Your task to perform on an android device: What's the weather? Image 0: 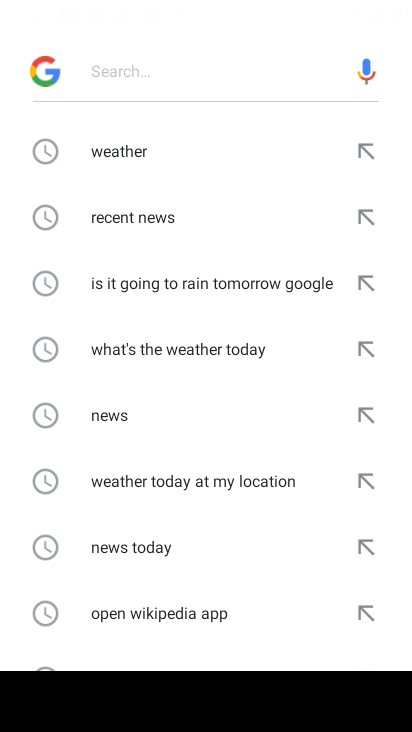
Step 0: press home button
Your task to perform on an android device: What's the weather? Image 1: 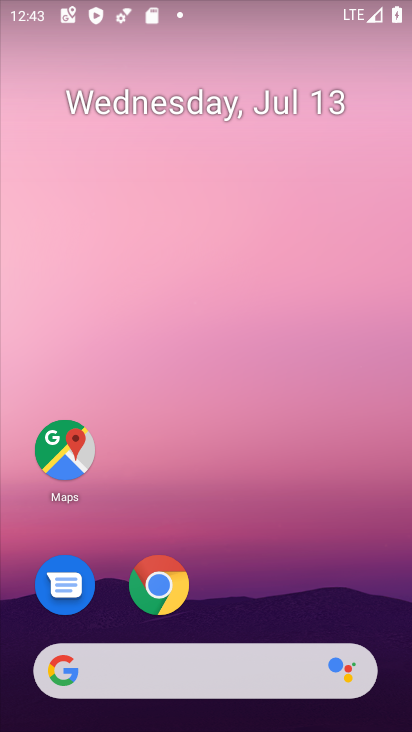
Step 1: click (188, 677)
Your task to perform on an android device: What's the weather? Image 2: 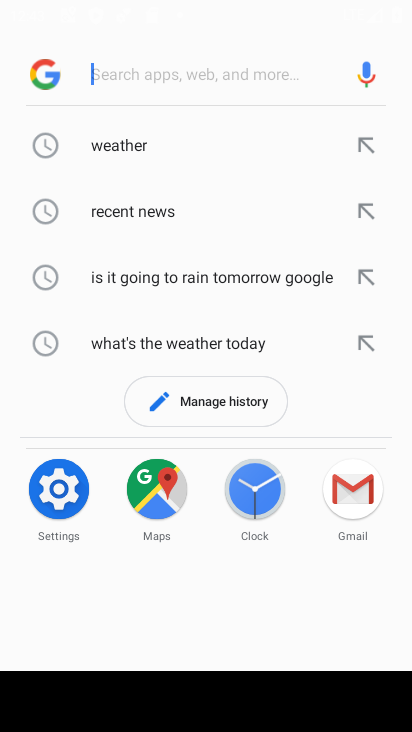
Step 2: click (113, 156)
Your task to perform on an android device: What's the weather? Image 3: 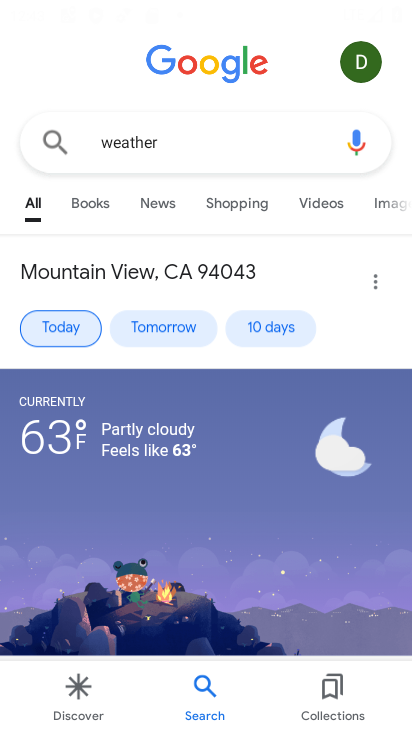
Step 3: task complete